Your task to perform on an android device: empty trash in google photos Image 0: 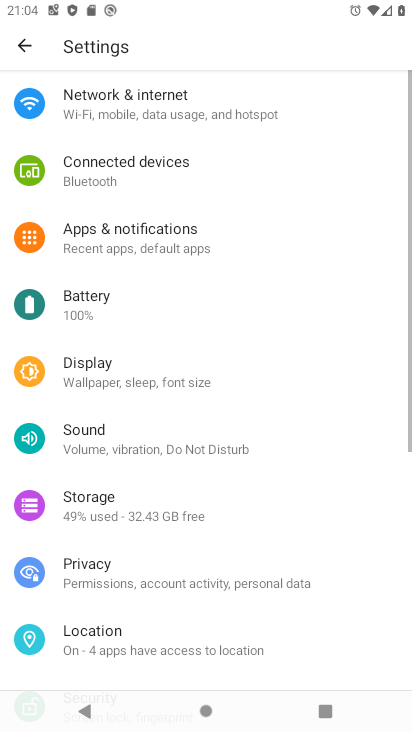
Step 0: press home button
Your task to perform on an android device: empty trash in google photos Image 1: 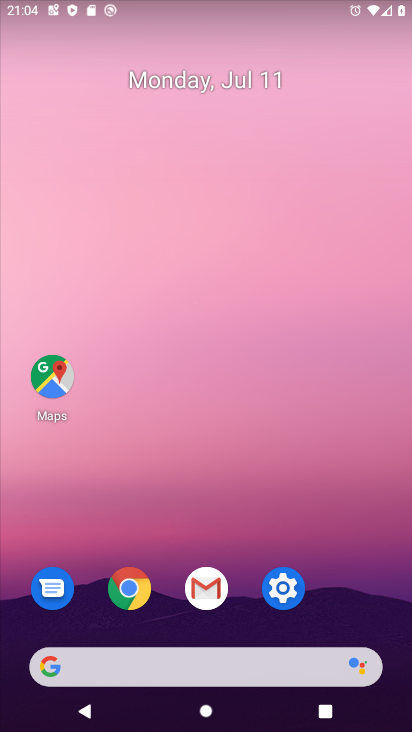
Step 1: drag from (249, 670) to (258, 294)
Your task to perform on an android device: empty trash in google photos Image 2: 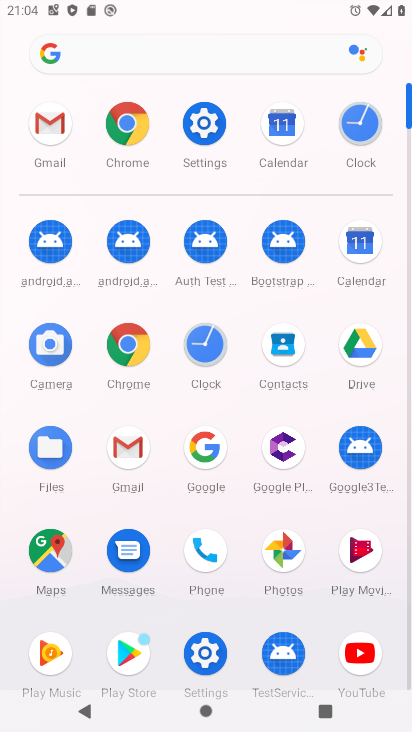
Step 2: click (272, 567)
Your task to perform on an android device: empty trash in google photos Image 3: 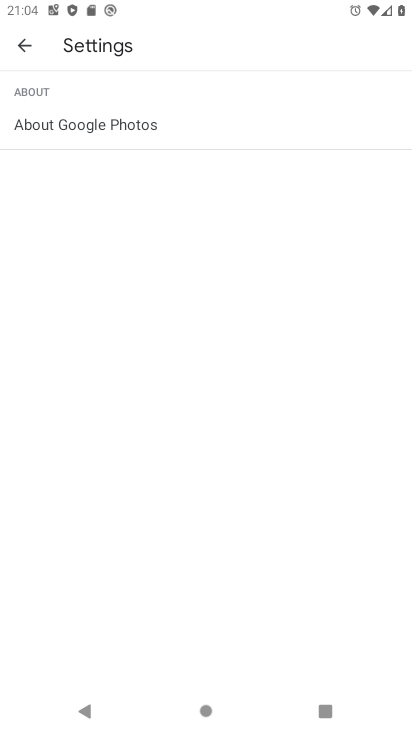
Step 3: click (18, 45)
Your task to perform on an android device: empty trash in google photos Image 4: 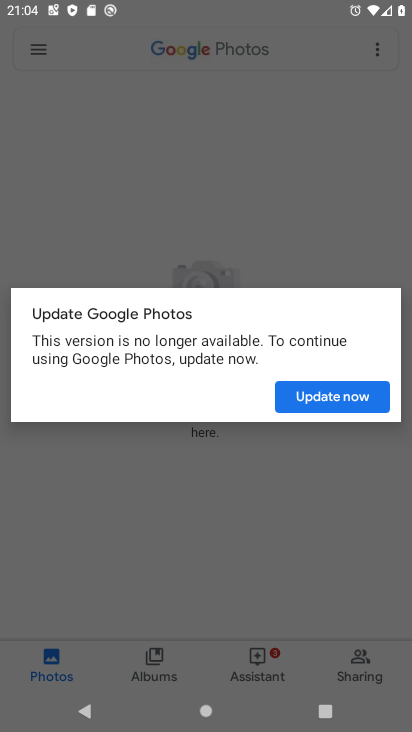
Step 4: click (311, 395)
Your task to perform on an android device: empty trash in google photos Image 5: 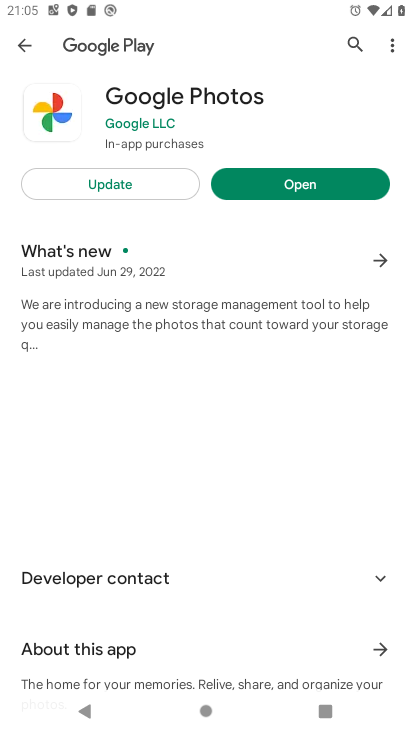
Step 5: click (114, 179)
Your task to perform on an android device: empty trash in google photos Image 6: 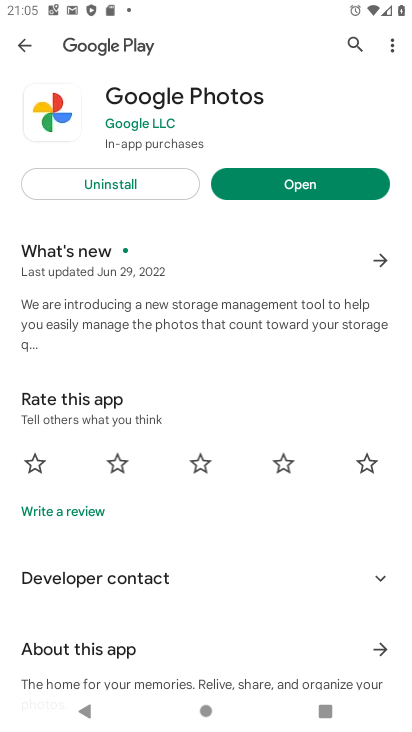
Step 6: click (286, 181)
Your task to perform on an android device: empty trash in google photos Image 7: 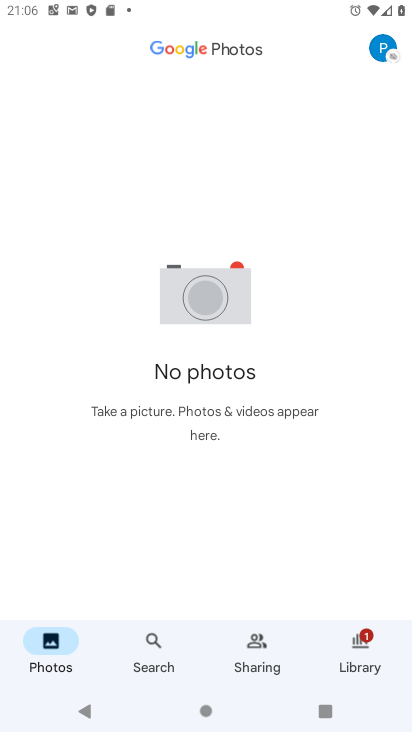
Step 7: click (152, 636)
Your task to perform on an android device: empty trash in google photos Image 8: 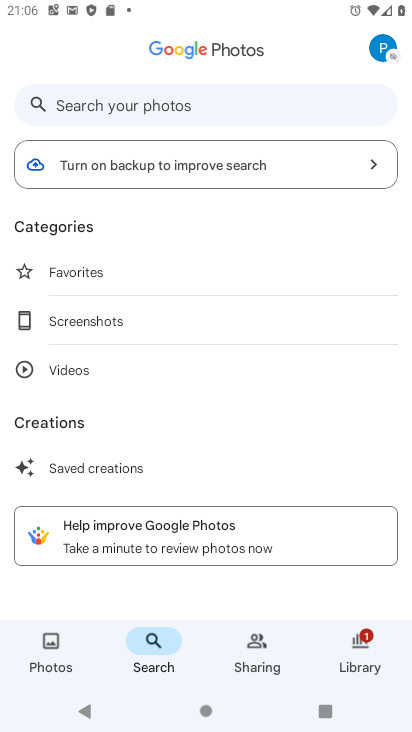
Step 8: click (100, 108)
Your task to perform on an android device: empty trash in google photos Image 9: 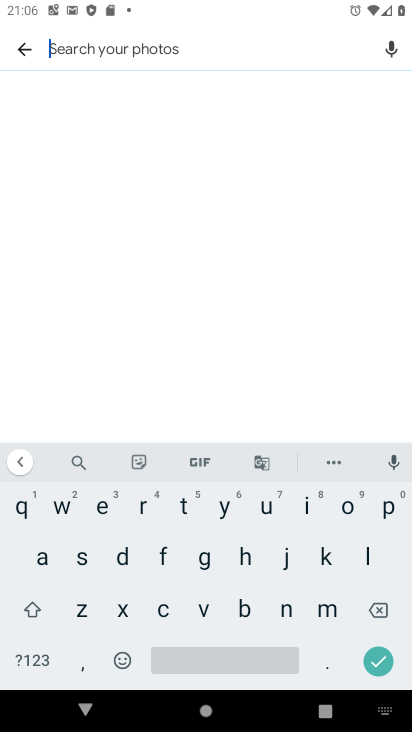
Step 9: click (182, 508)
Your task to perform on an android device: empty trash in google photos Image 10: 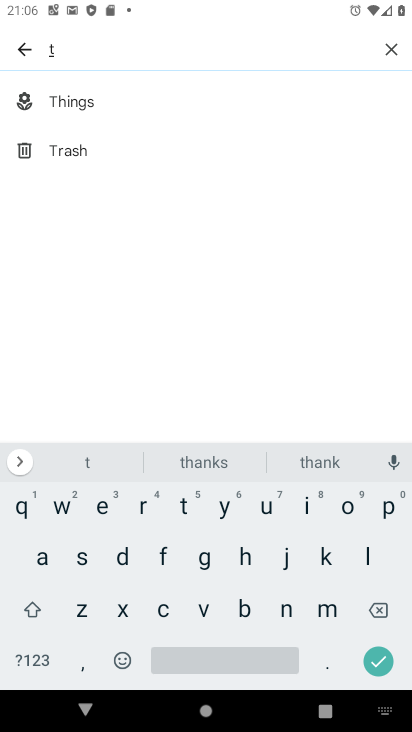
Step 10: click (131, 508)
Your task to perform on an android device: empty trash in google photos Image 11: 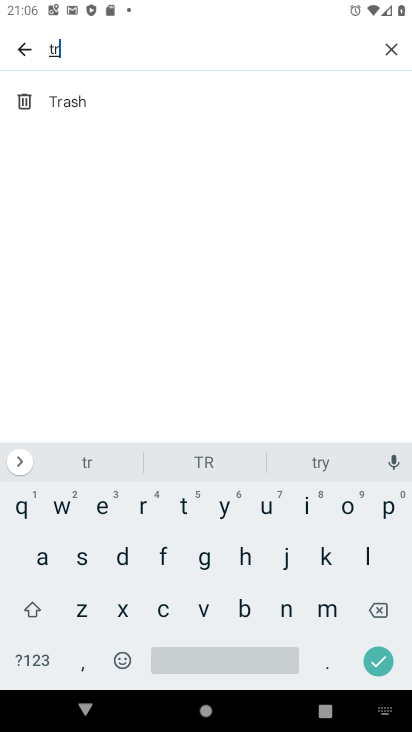
Step 11: click (106, 101)
Your task to perform on an android device: empty trash in google photos Image 12: 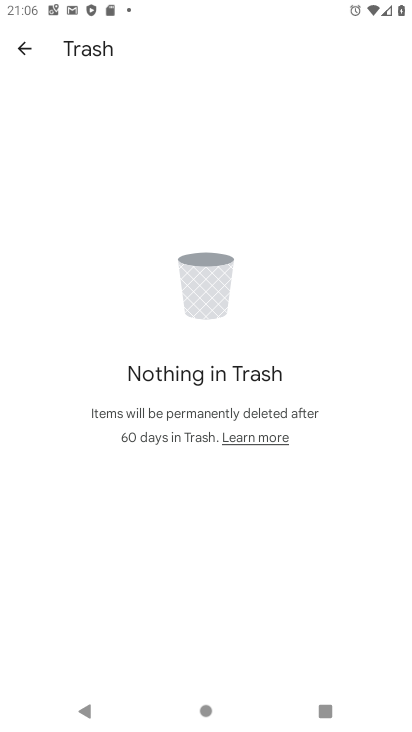
Step 12: task complete